Your task to perform on an android device: Open settings Image 0: 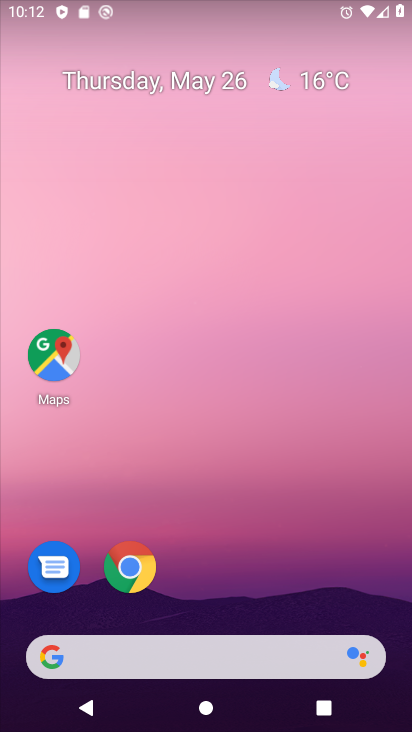
Step 0: drag from (392, 664) to (383, 313)
Your task to perform on an android device: Open settings Image 1: 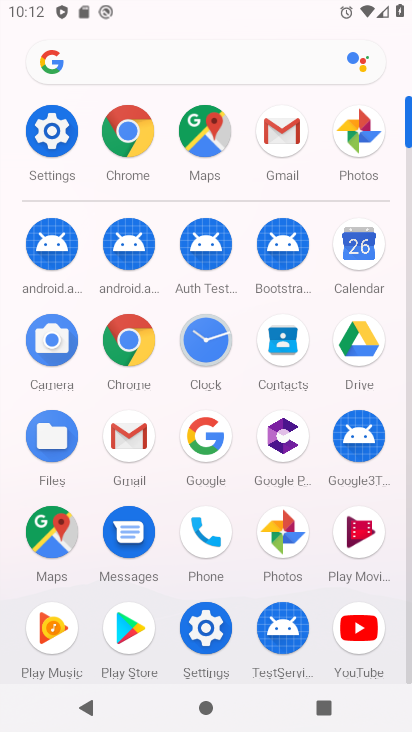
Step 1: click (31, 136)
Your task to perform on an android device: Open settings Image 2: 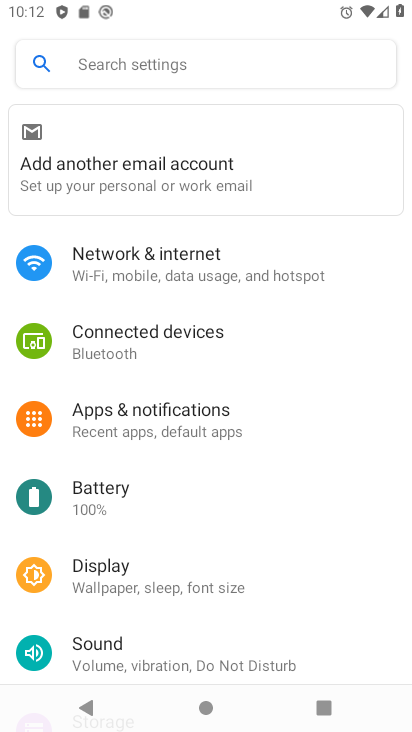
Step 2: task complete